Your task to perform on an android device: Go to wifi settings Image 0: 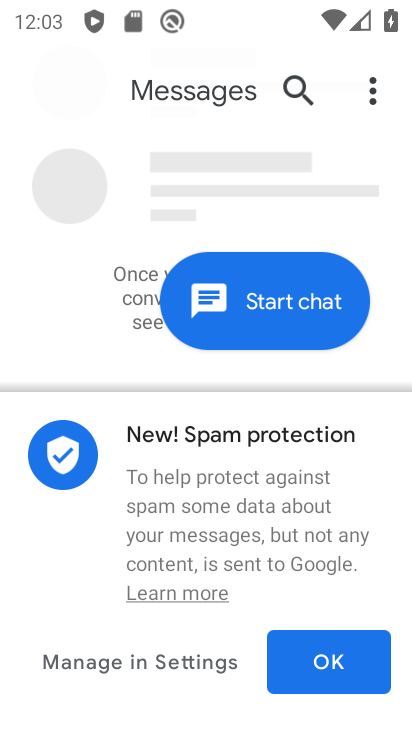
Step 0: press home button
Your task to perform on an android device: Go to wifi settings Image 1: 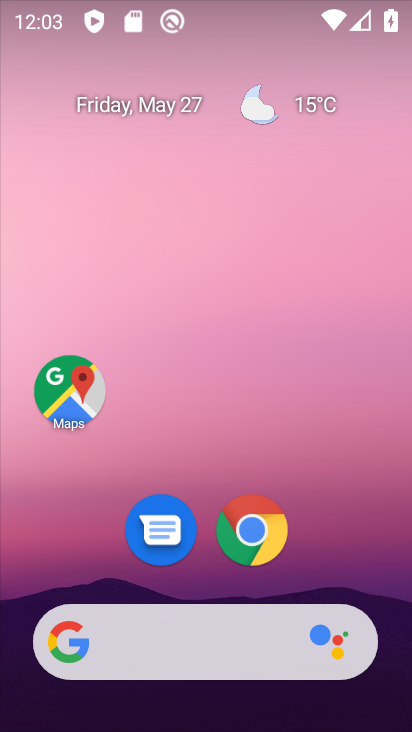
Step 1: drag from (92, 595) to (190, 136)
Your task to perform on an android device: Go to wifi settings Image 2: 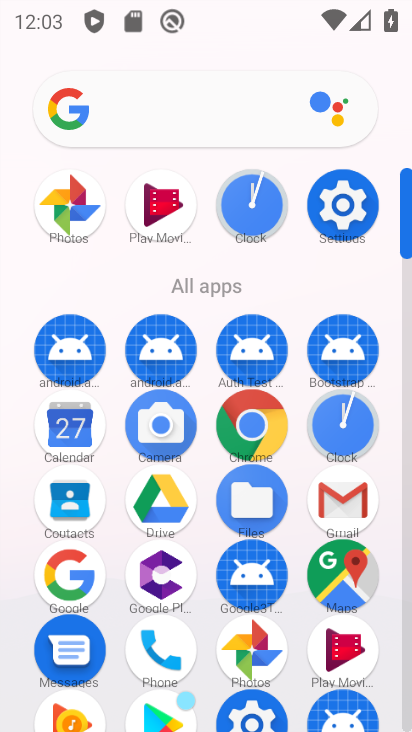
Step 2: drag from (228, 564) to (314, 226)
Your task to perform on an android device: Go to wifi settings Image 3: 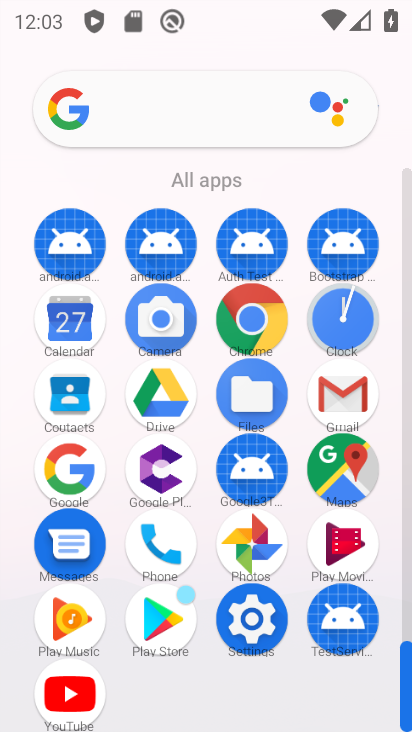
Step 3: click (249, 632)
Your task to perform on an android device: Go to wifi settings Image 4: 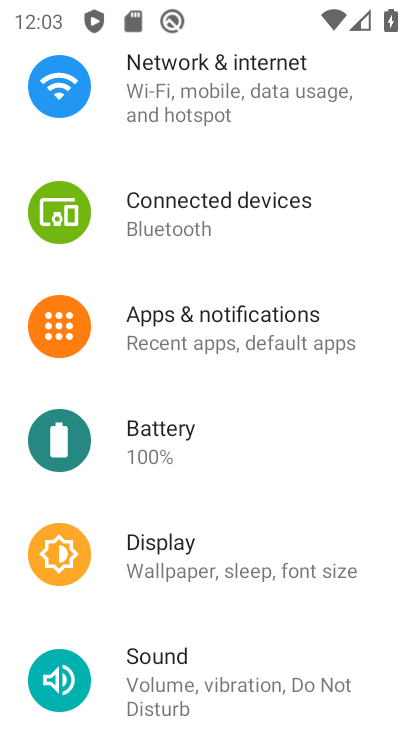
Step 4: drag from (240, 281) to (248, 669)
Your task to perform on an android device: Go to wifi settings Image 5: 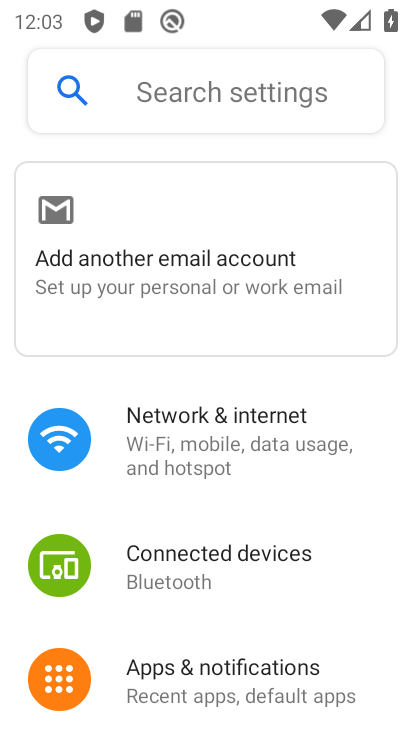
Step 5: click (174, 454)
Your task to perform on an android device: Go to wifi settings Image 6: 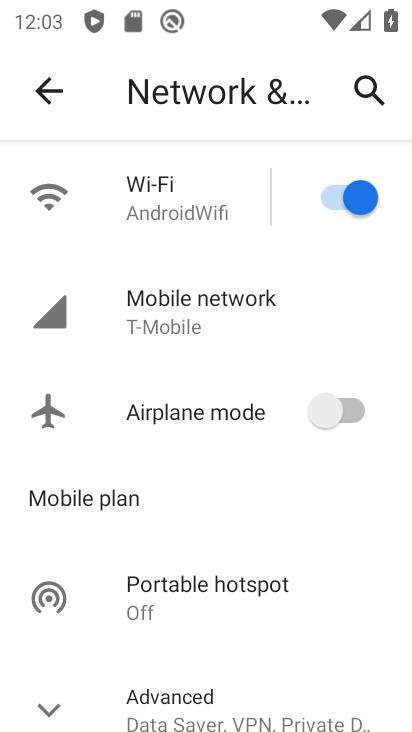
Step 6: click (195, 203)
Your task to perform on an android device: Go to wifi settings Image 7: 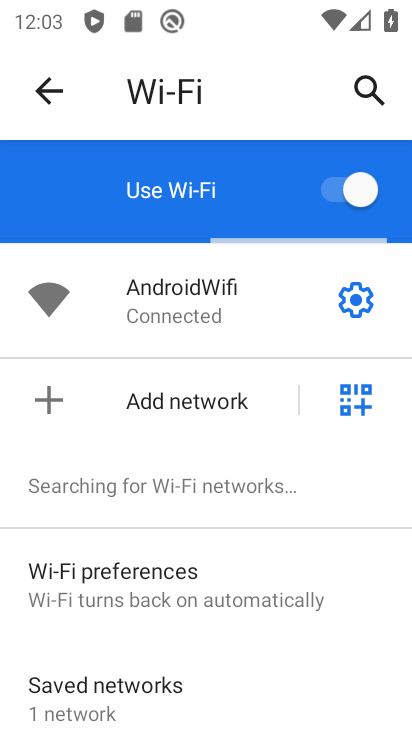
Step 7: task complete